Your task to perform on an android device: turn on notifications settings in the gmail app Image 0: 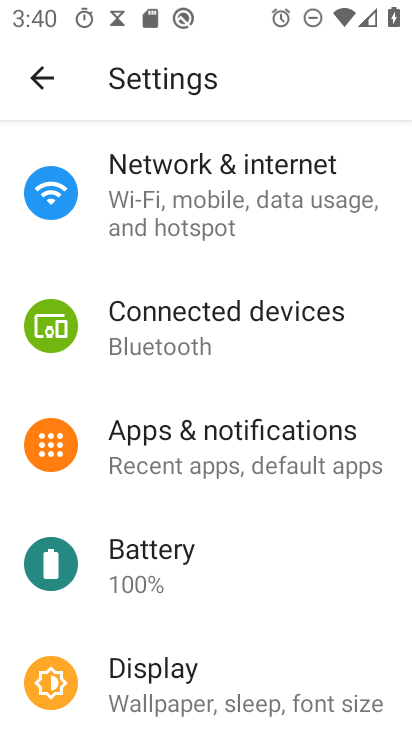
Step 0: press back button
Your task to perform on an android device: turn on notifications settings in the gmail app Image 1: 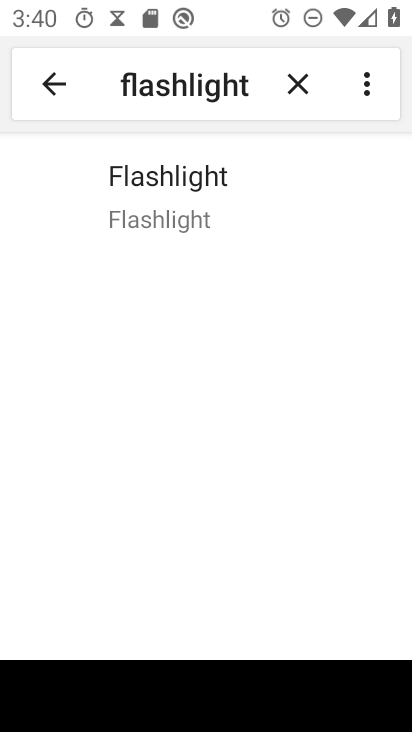
Step 1: task complete